Your task to perform on an android device: make emails show in primary in the gmail app Image 0: 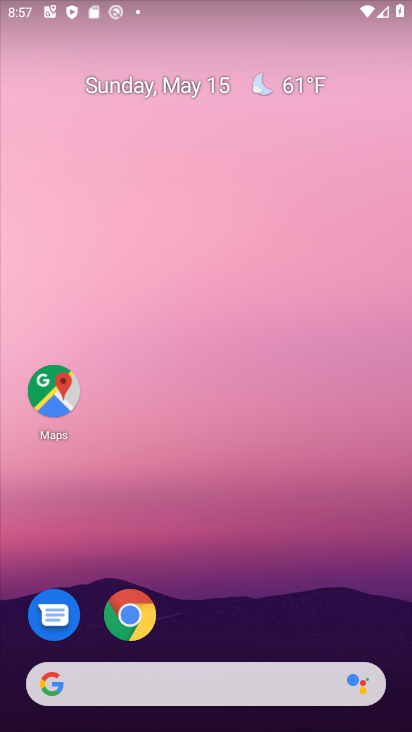
Step 0: drag from (229, 468) to (206, 19)
Your task to perform on an android device: make emails show in primary in the gmail app Image 1: 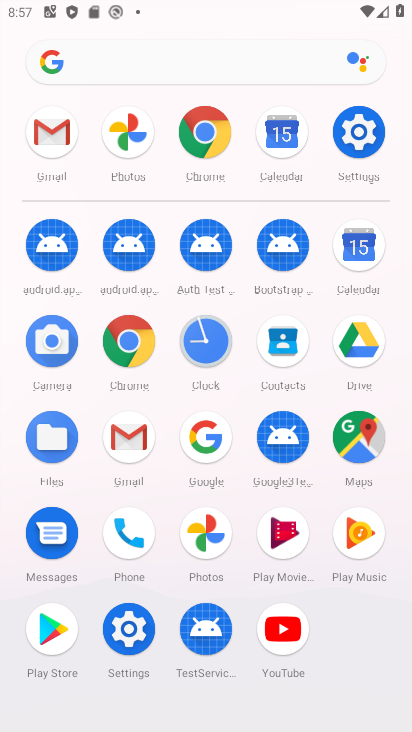
Step 1: drag from (5, 585) to (4, 284)
Your task to perform on an android device: make emails show in primary in the gmail app Image 2: 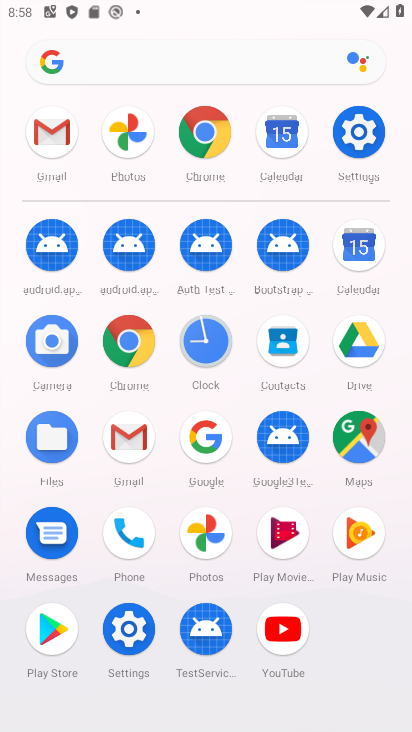
Step 2: click (129, 431)
Your task to perform on an android device: make emails show in primary in the gmail app Image 3: 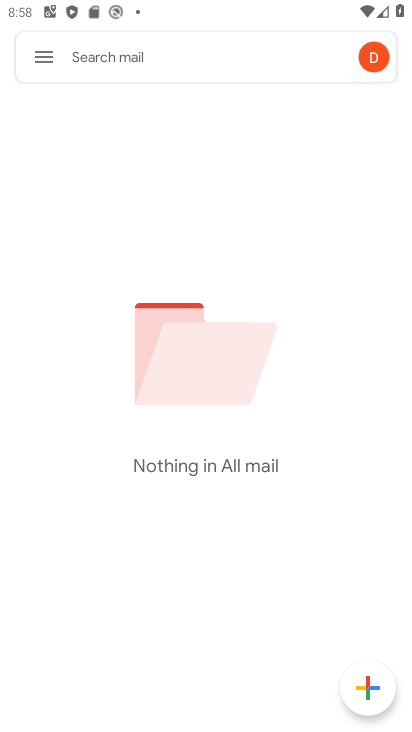
Step 3: click (42, 54)
Your task to perform on an android device: make emails show in primary in the gmail app Image 4: 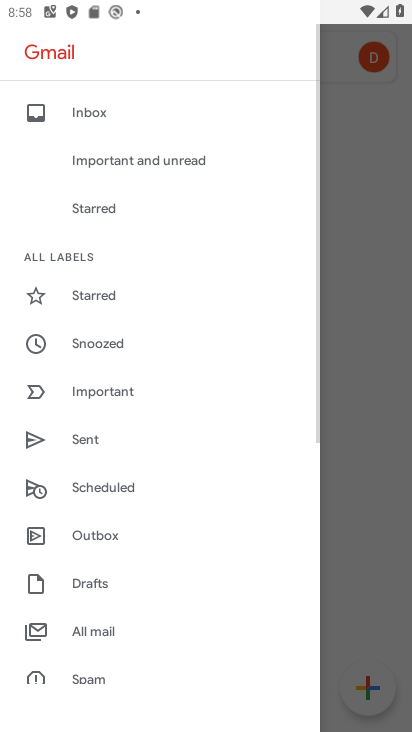
Step 4: drag from (127, 652) to (119, 208)
Your task to perform on an android device: make emails show in primary in the gmail app Image 5: 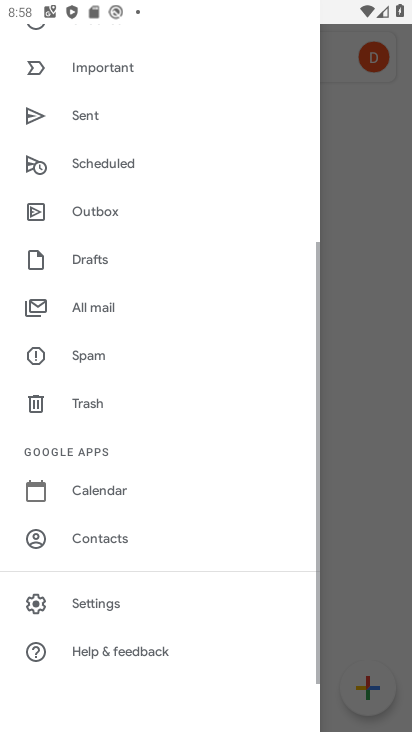
Step 5: click (106, 610)
Your task to perform on an android device: make emails show in primary in the gmail app Image 6: 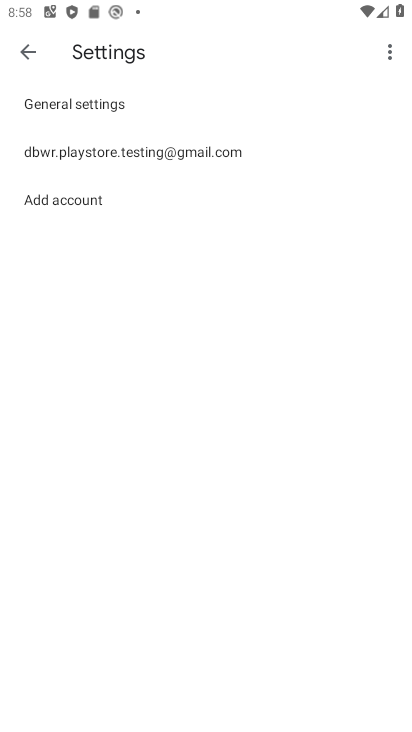
Step 6: click (130, 153)
Your task to perform on an android device: make emails show in primary in the gmail app Image 7: 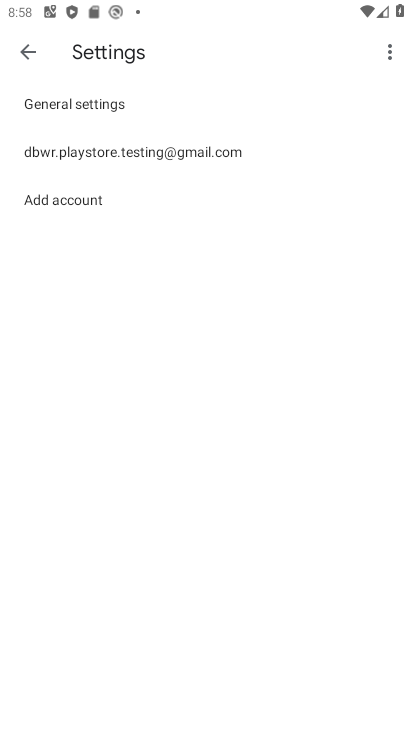
Step 7: click (130, 153)
Your task to perform on an android device: make emails show in primary in the gmail app Image 8: 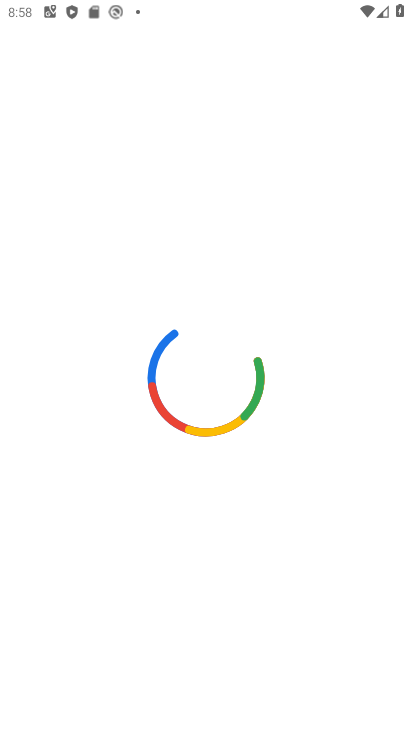
Step 8: press back button
Your task to perform on an android device: make emails show in primary in the gmail app Image 9: 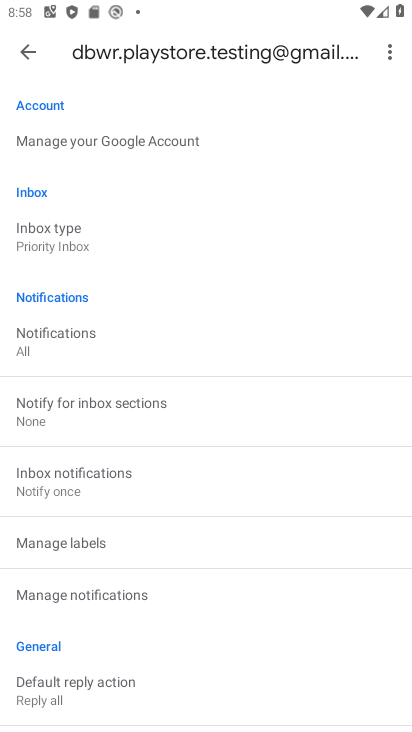
Step 9: click (87, 231)
Your task to perform on an android device: make emails show in primary in the gmail app Image 10: 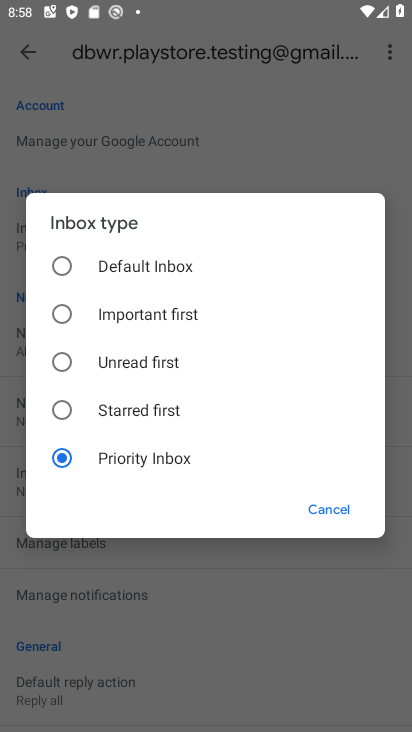
Step 10: click (145, 271)
Your task to perform on an android device: make emails show in primary in the gmail app Image 11: 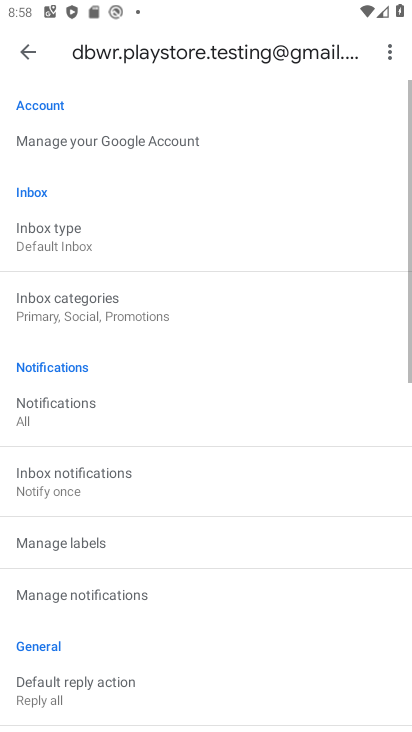
Step 11: click (122, 296)
Your task to perform on an android device: make emails show in primary in the gmail app Image 12: 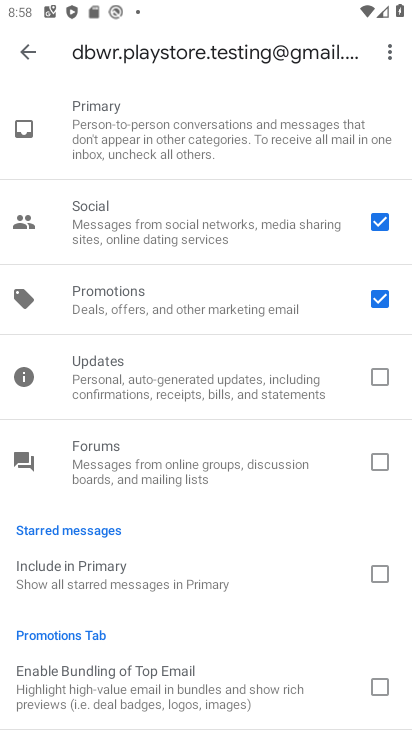
Step 12: click (373, 303)
Your task to perform on an android device: make emails show in primary in the gmail app Image 13: 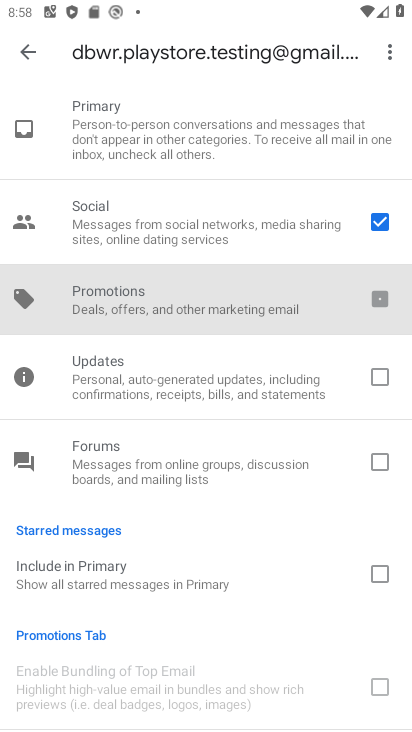
Step 13: click (383, 227)
Your task to perform on an android device: make emails show in primary in the gmail app Image 14: 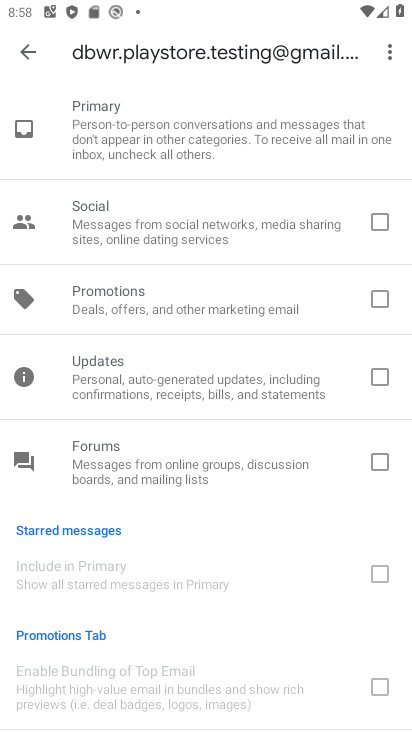
Step 14: click (31, 51)
Your task to perform on an android device: make emails show in primary in the gmail app Image 15: 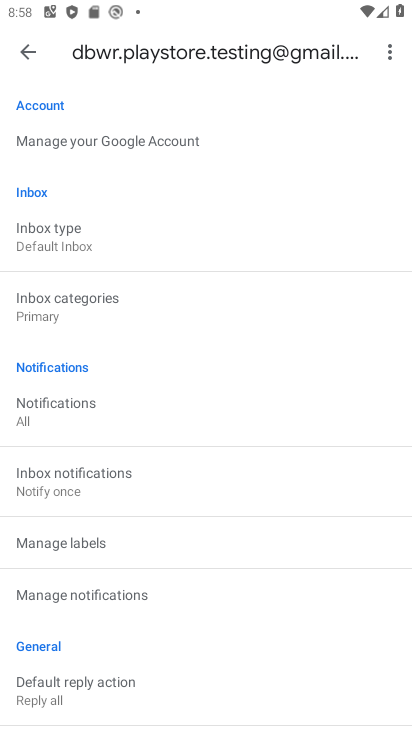
Step 15: task complete